Your task to perform on an android device: turn off priority inbox in the gmail app Image 0: 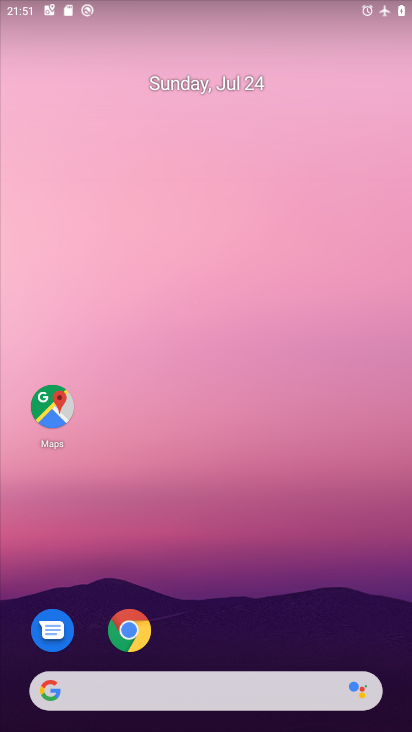
Step 0: drag from (236, 622) to (245, 112)
Your task to perform on an android device: turn off priority inbox in the gmail app Image 1: 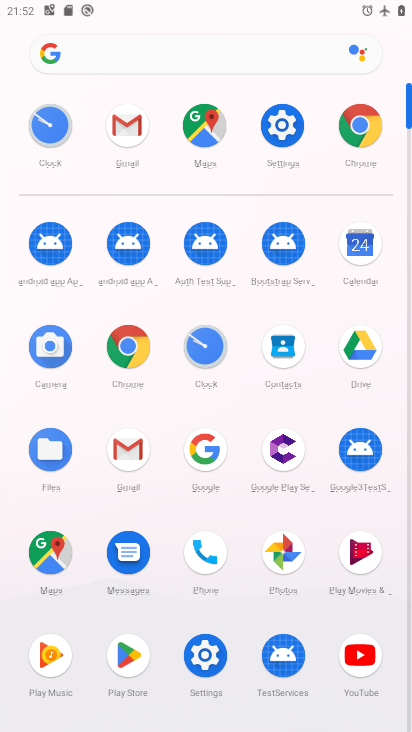
Step 1: click (131, 123)
Your task to perform on an android device: turn off priority inbox in the gmail app Image 2: 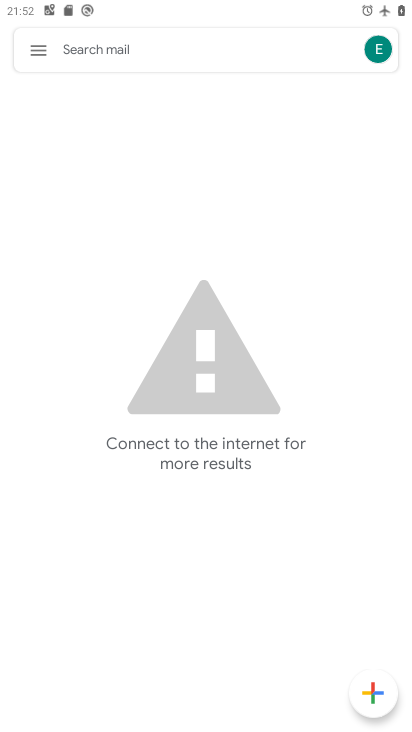
Step 2: click (35, 52)
Your task to perform on an android device: turn off priority inbox in the gmail app Image 3: 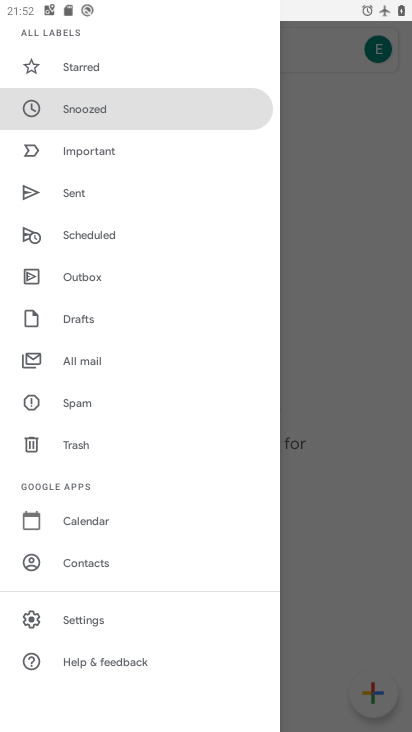
Step 3: click (87, 625)
Your task to perform on an android device: turn off priority inbox in the gmail app Image 4: 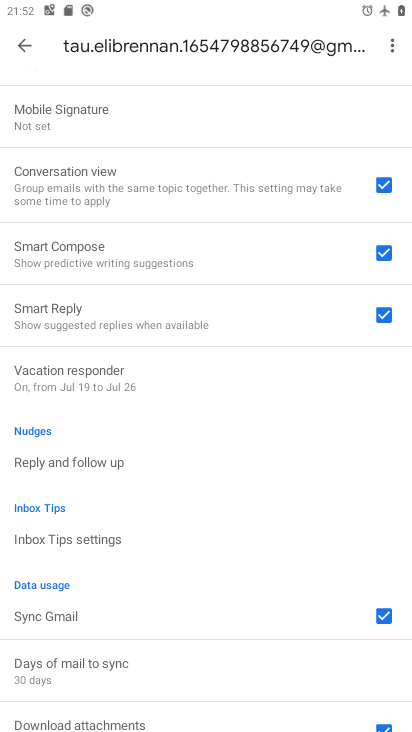
Step 4: drag from (99, 151) to (159, 710)
Your task to perform on an android device: turn off priority inbox in the gmail app Image 5: 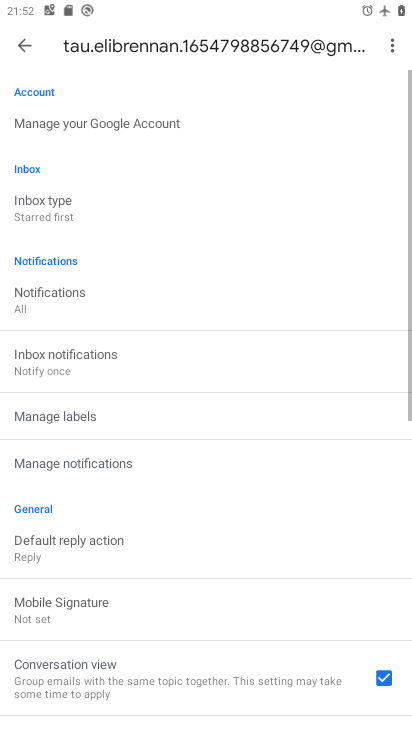
Step 5: click (86, 209)
Your task to perform on an android device: turn off priority inbox in the gmail app Image 6: 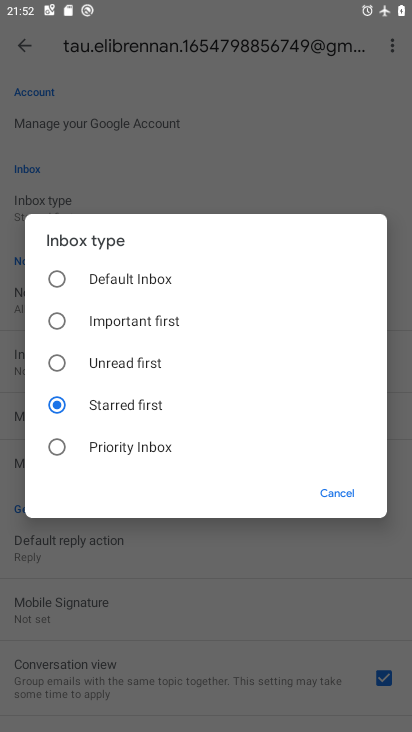
Step 6: click (94, 280)
Your task to perform on an android device: turn off priority inbox in the gmail app Image 7: 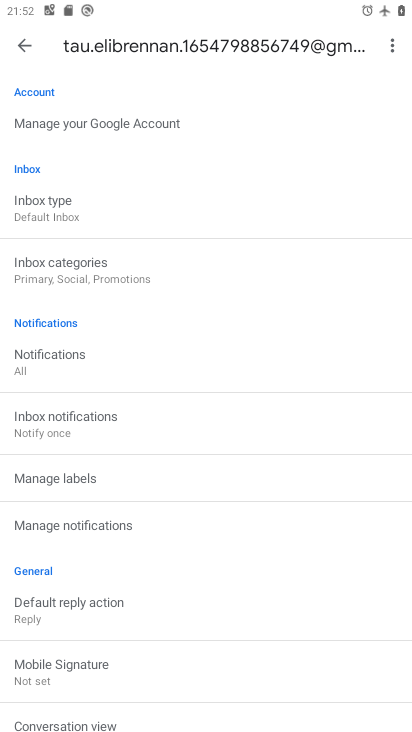
Step 7: task complete